Your task to perform on an android device: Open Yahoo.com Image 0: 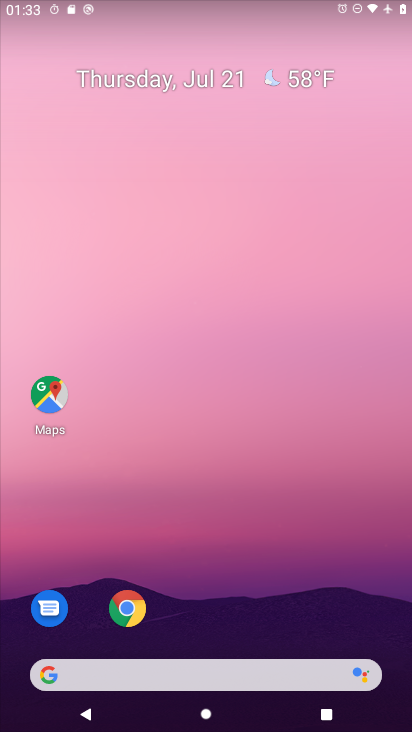
Step 0: press home button
Your task to perform on an android device: Open Yahoo.com Image 1: 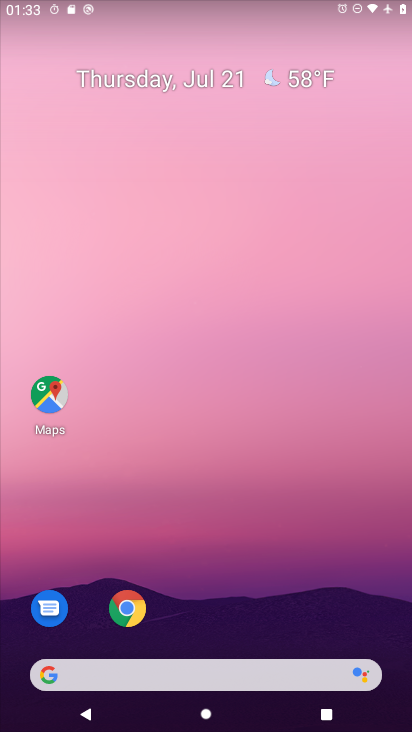
Step 1: click (39, 681)
Your task to perform on an android device: Open Yahoo.com Image 2: 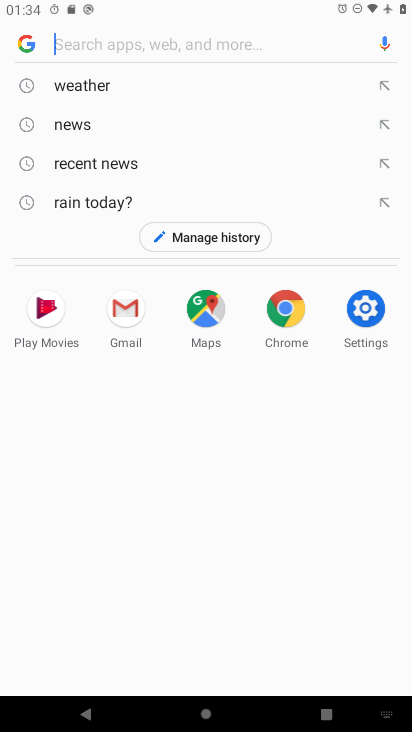
Step 2: type "Yahoo.com"
Your task to perform on an android device: Open Yahoo.com Image 3: 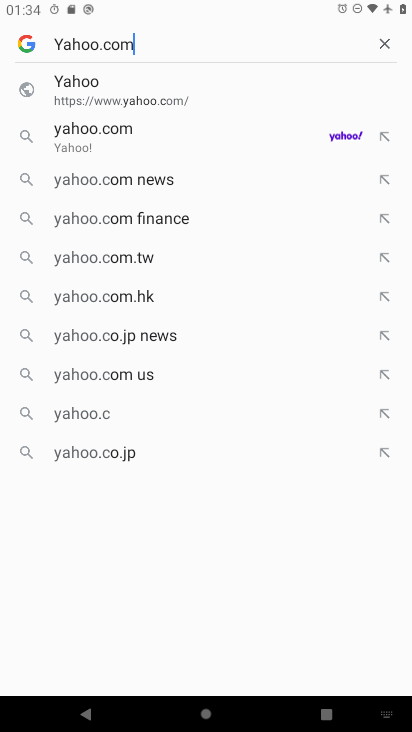
Step 3: press enter
Your task to perform on an android device: Open Yahoo.com Image 4: 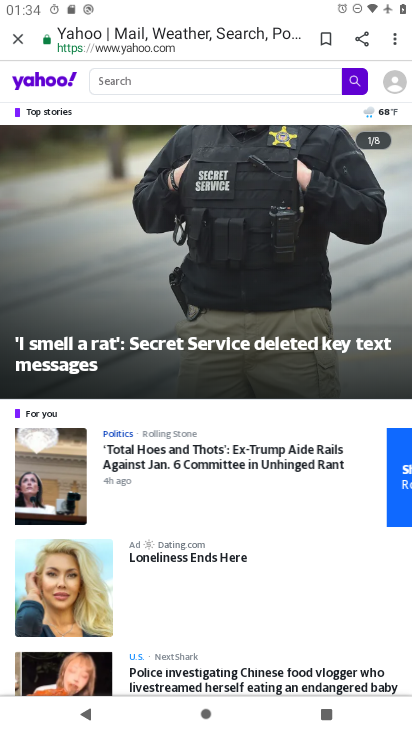
Step 4: task complete